Your task to perform on an android device: Go to Amazon Image 0: 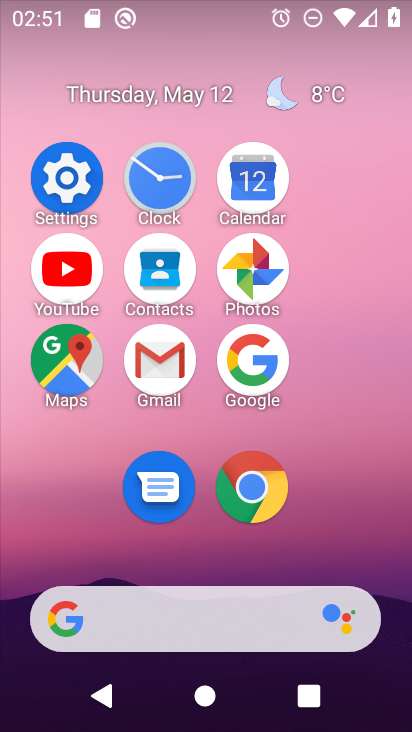
Step 0: click (258, 487)
Your task to perform on an android device: Go to Amazon Image 1: 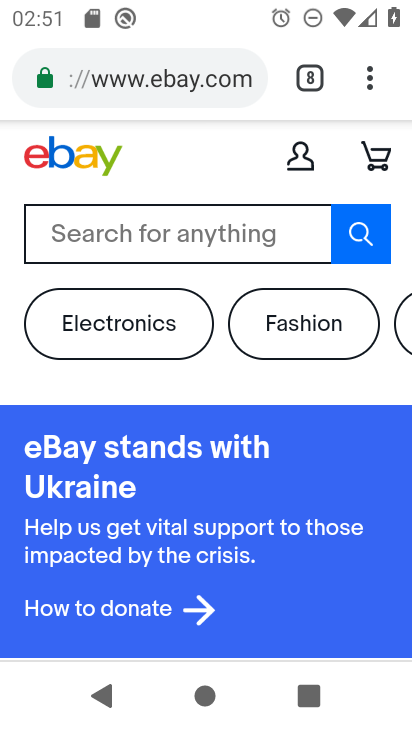
Step 1: click (306, 70)
Your task to perform on an android device: Go to Amazon Image 2: 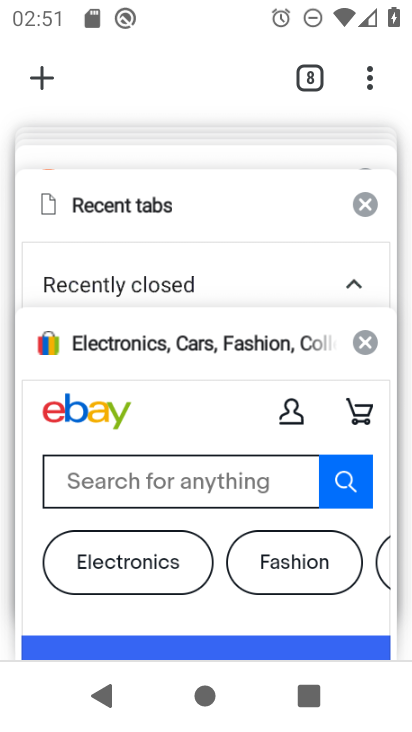
Step 2: drag from (177, 281) to (209, 509)
Your task to perform on an android device: Go to Amazon Image 3: 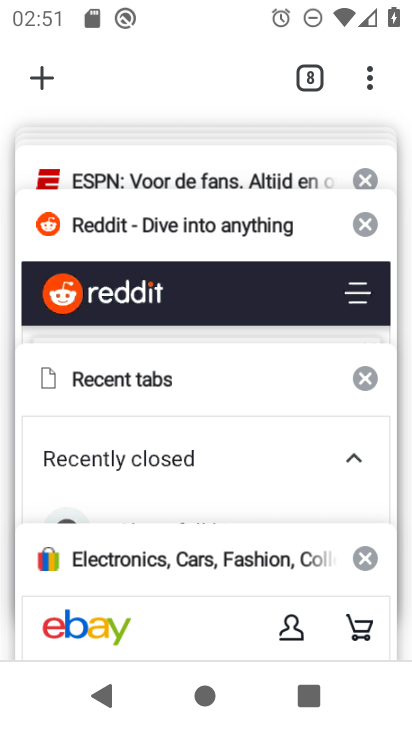
Step 3: drag from (196, 160) to (205, 545)
Your task to perform on an android device: Go to Amazon Image 4: 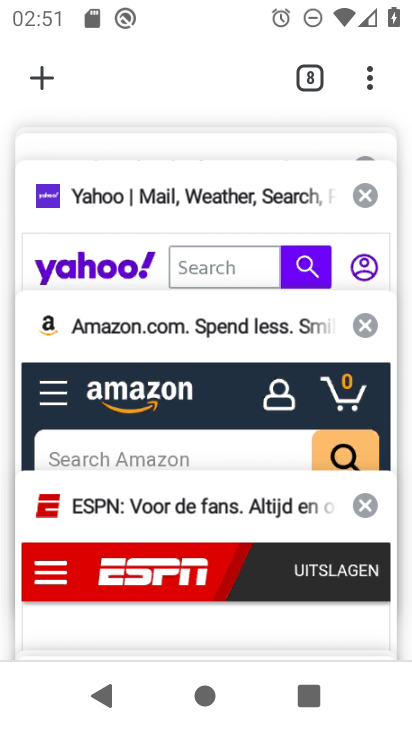
Step 4: click (115, 366)
Your task to perform on an android device: Go to Amazon Image 5: 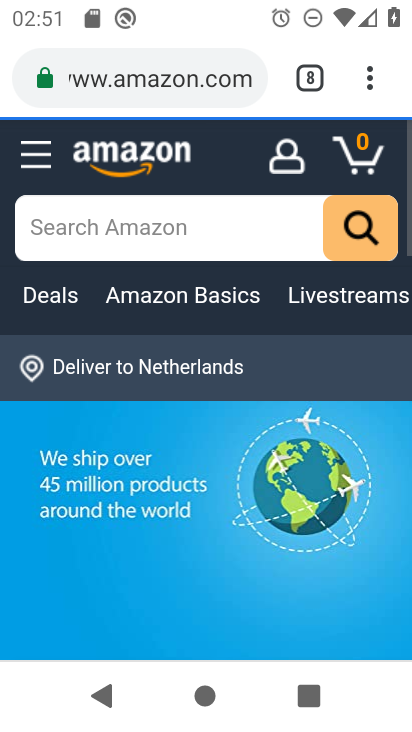
Step 5: task complete